Your task to perform on an android device: What's the weather going to be tomorrow? Image 0: 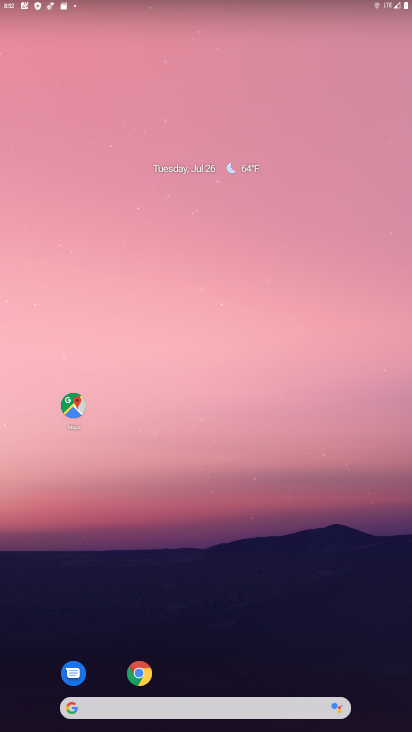
Step 0: drag from (297, 601) to (316, 159)
Your task to perform on an android device: What's the weather going to be tomorrow? Image 1: 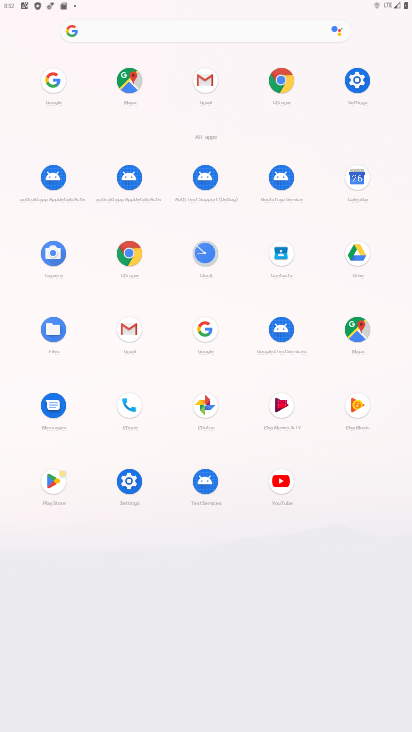
Step 1: click (354, 183)
Your task to perform on an android device: What's the weather going to be tomorrow? Image 2: 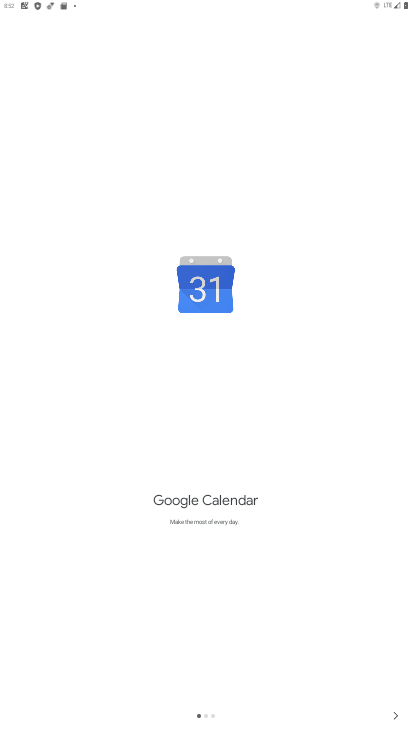
Step 2: press home button
Your task to perform on an android device: What's the weather going to be tomorrow? Image 3: 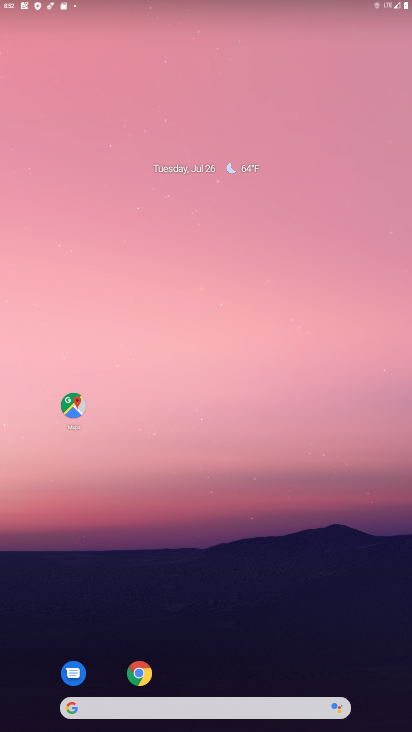
Step 3: drag from (312, 564) to (322, 162)
Your task to perform on an android device: What's the weather going to be tomorrow? Image 4: 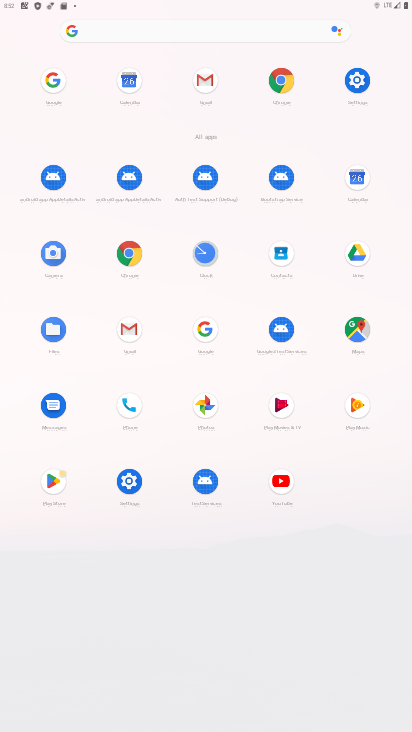
Step 4: click (209, 331)
Your task to perform on an android device: What's the weather going to be tomorrow? Image 5: 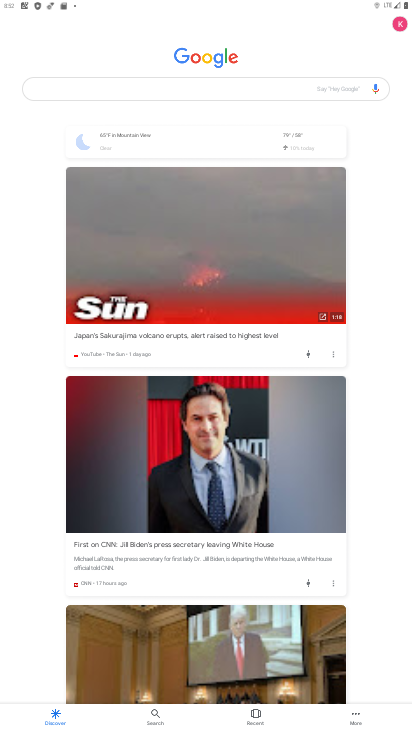
Step 5: click (233, 86)
Your task to perform on an android device: What's the weather going to be tomorrow? Image 6: 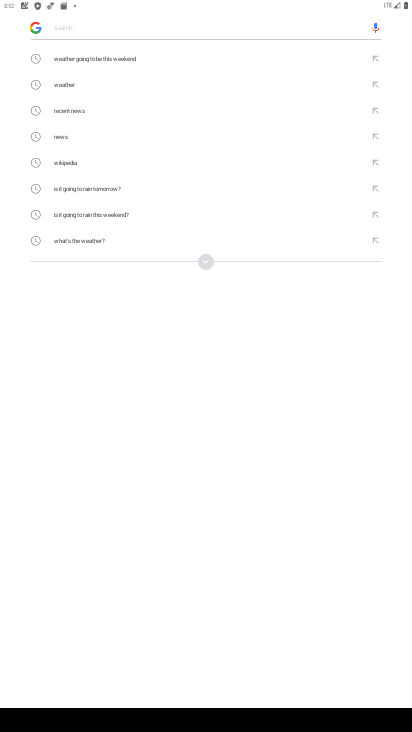
Step 6: type "weather goinh to be tomorrow"
Your task to perform on an android device: What's the weather going to be tomorrow? Image 7: 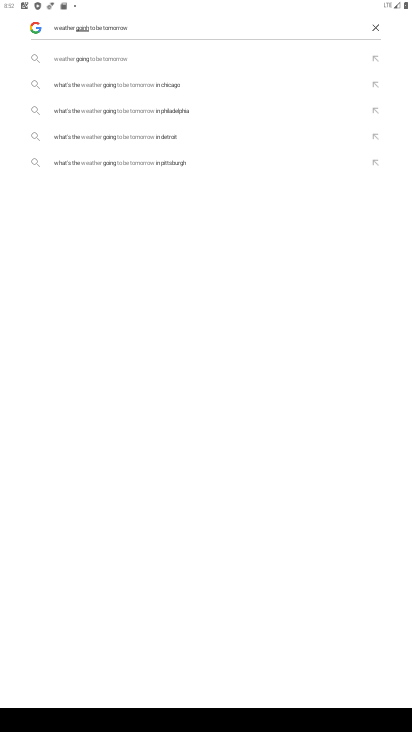
Step 7: click (97, 54)
Your task to perform on an android device: What's the weather going to be tomorrow? Image 8: 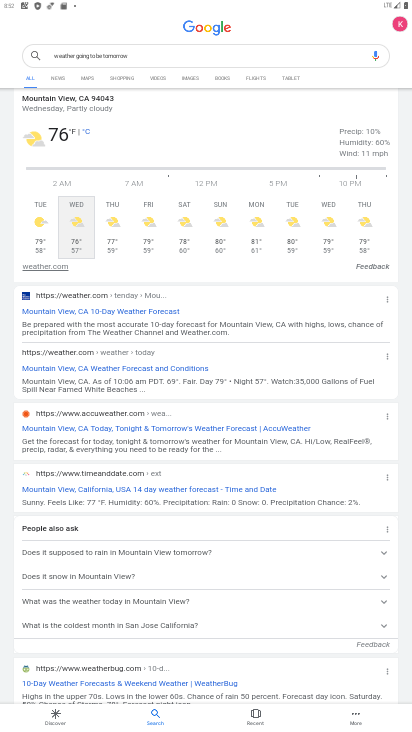
Step 8: task complete